Your task to perform on an android device: Open Google Maps and go to "Timeline" Image 0: 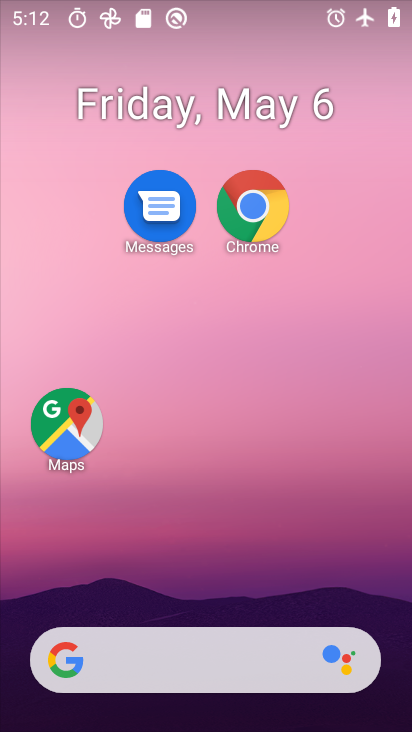
Step 0: click (50, 412)
Your task to perform on an android device: Open Google Maps and go to "Timeline" Image 1: 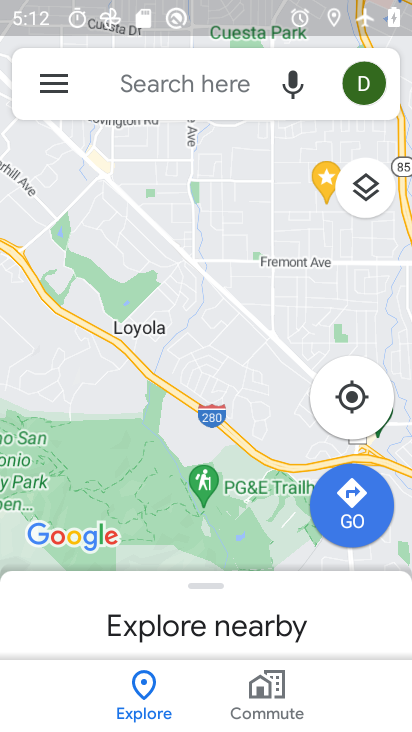
Step 1: click (54, 84)
Your task to perform on an android device: Open Google Maps and go to "Timeline" Image 2: 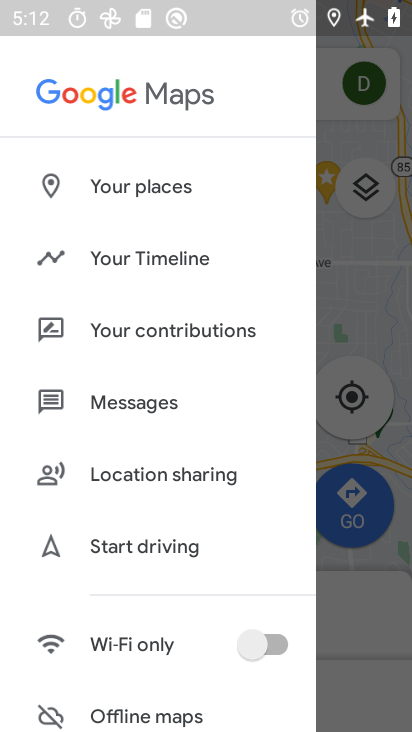
Step 2: click (132, 255)
Your task to perform on an android device: Open Google Maps and go to "Timeline" Image 3: 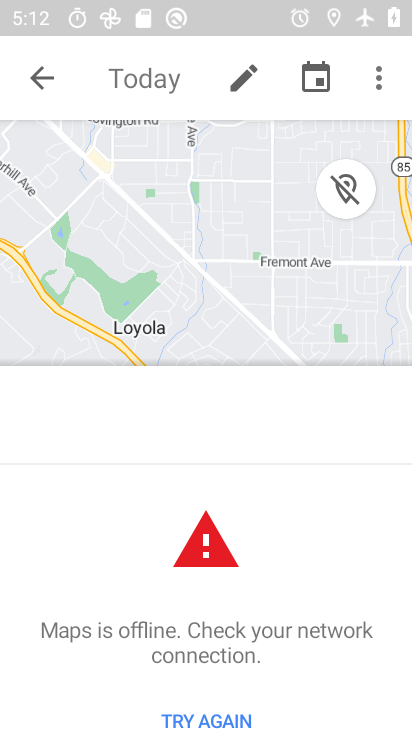
Step 3: task complete